Your task to perform on an android device: check the backup settings in the google photos Image 0: 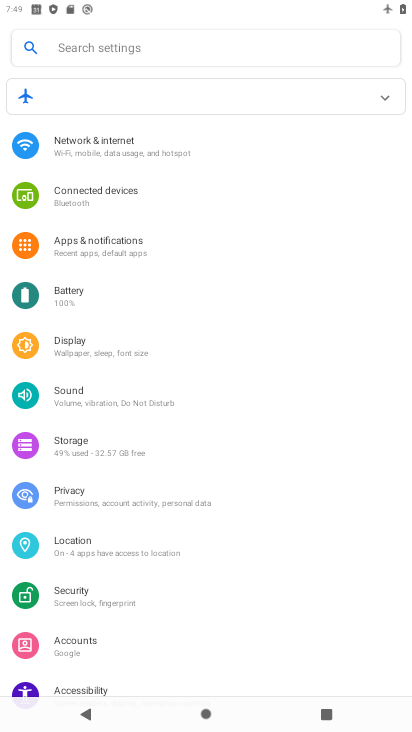
Step 0: press home button
Your task to perform on an android device: check the backup settings in the google photos Image 1: 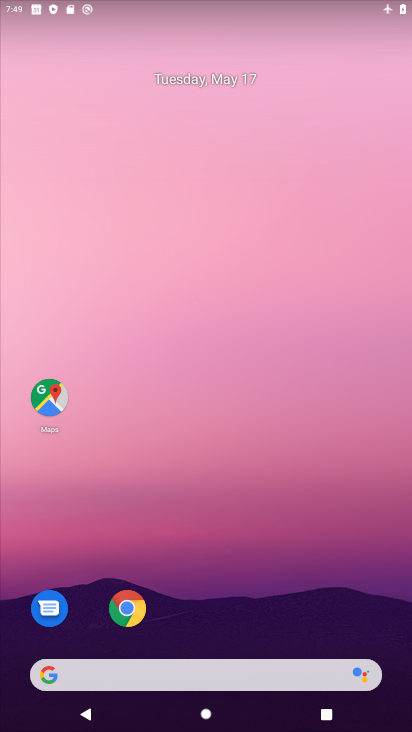
Step 1: drag from (254, 600) to (335, 10)
Your task to perform on an android device: check the backup settings in the google photos Image 2: 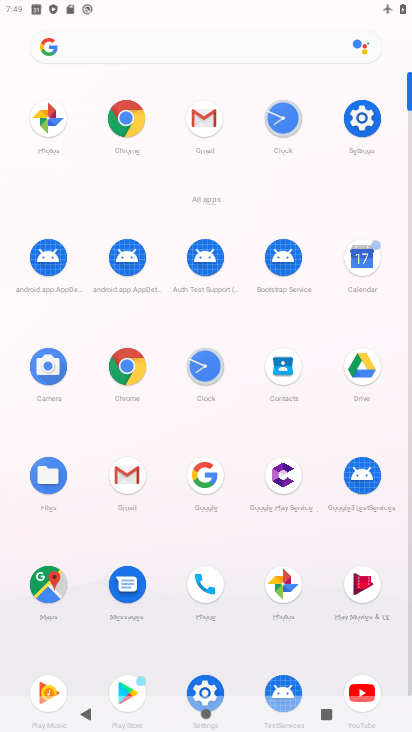
Step 2: drag from (180, 549) to (270, 157)
Your task to perform on an android device: check the backup settings in the google photos Image 3: 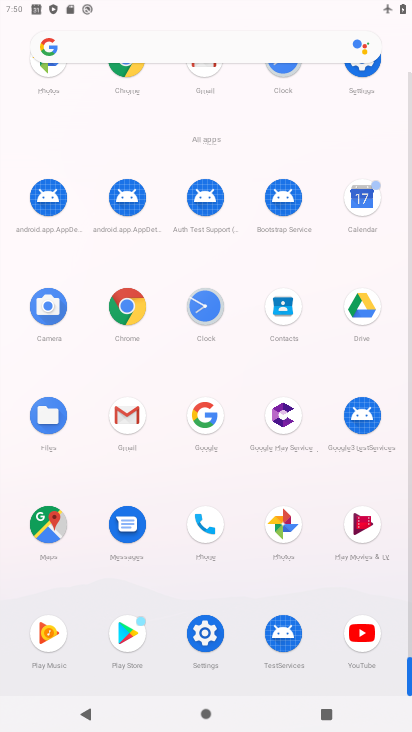
Step 3: click (278, 516)
Your task to perform on an android device: check the backup settings in the google photos Image 4: 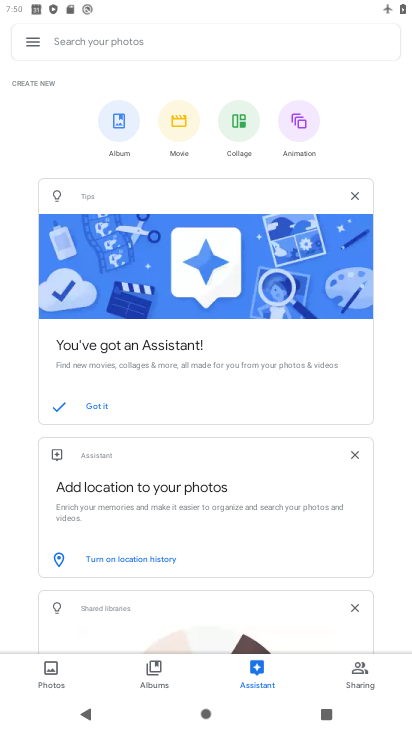
Step 4: click (35, 42)
Your task to perform on an android device: check the backup settings in the google photos Image 5: 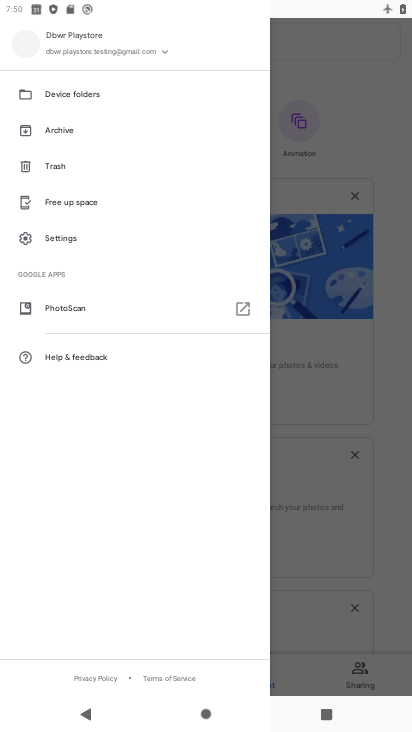
Step 5: click (61, 235)
Your task to perform on an android device: check the backup settings in the google photos Image 6: 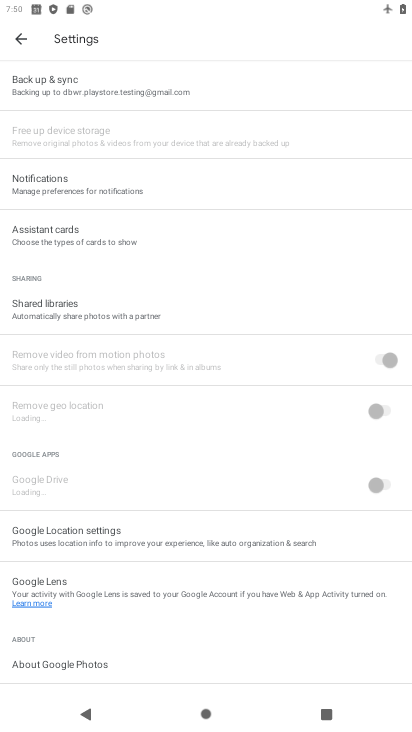
Step 6: click (93, 82)
Your task to perform on an android device: check the backup settings in the google photos Image 7: 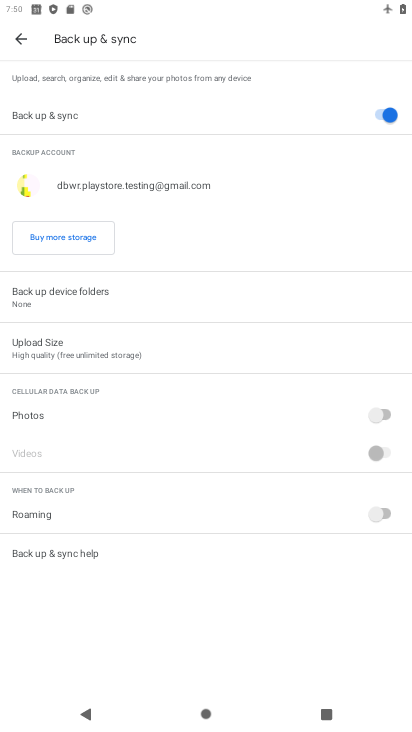
Step 7: task complete